Your task to perform on an android device: add a label to a message in the gmail app Image 0: 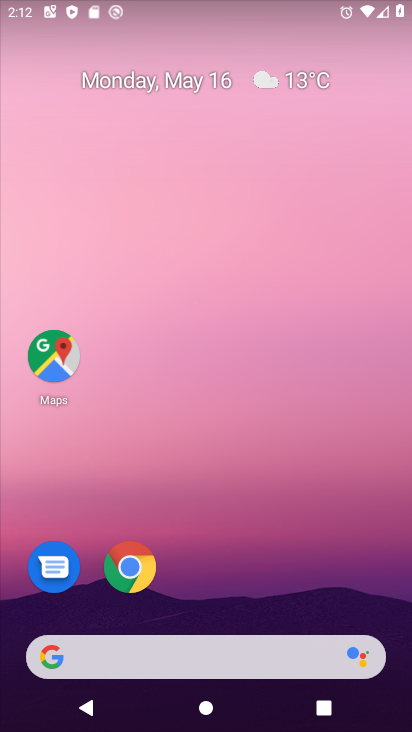
Step 0: press home button
Your task to perform on an android device: add a label to a message in the gmail app Image 1: 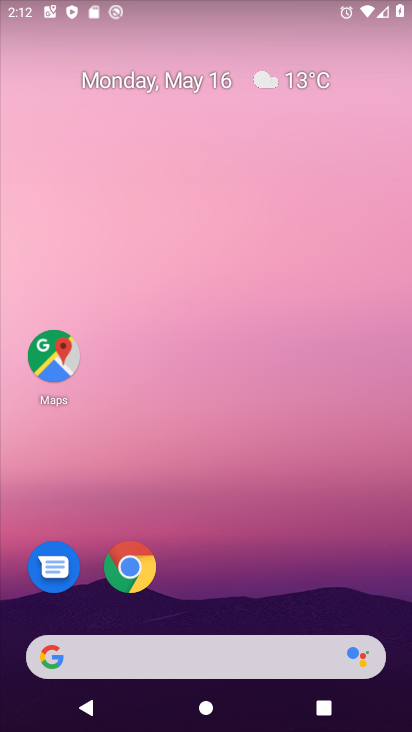
Step 1: drag from (233, 584) to (310, 11)
Your task to perform on an android device: add a label to a message in the gmail app Image 2: 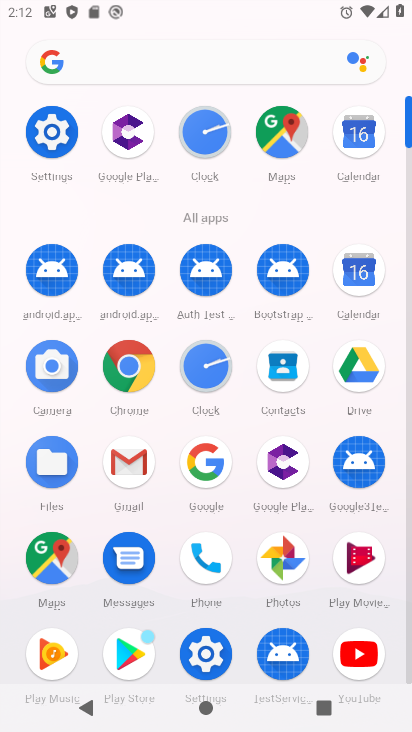
Step 2: click (126, 480)
Your task to perform on an android device: add a label to a message in the gmail app Image 3: 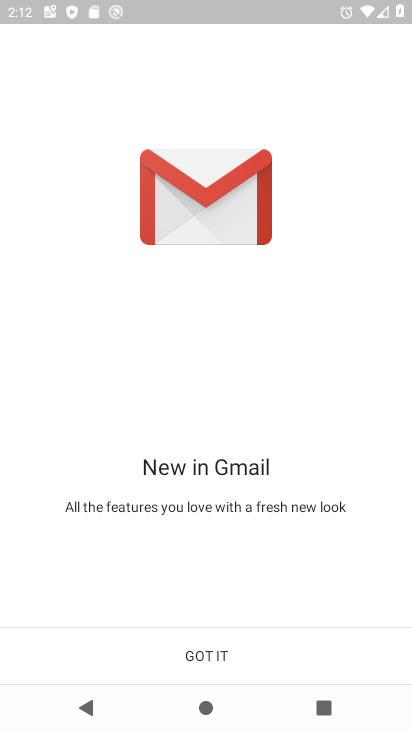
Step 3: click (190, 660)
Your task to perform on an android device: add a label to a message in the gmail app Image 4: 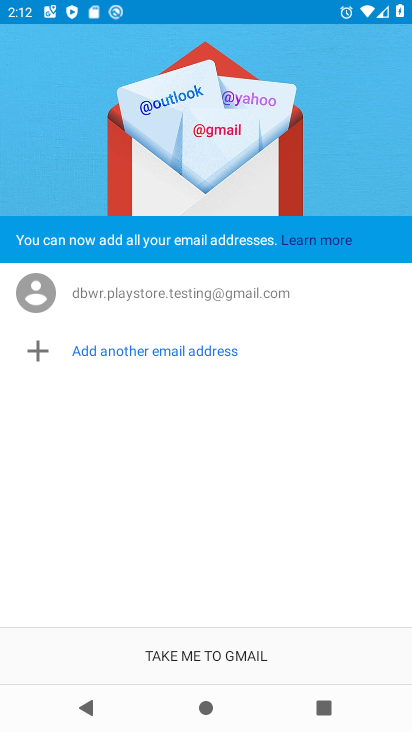
Step 4: click (190, 660)
Your task to perform on an android device: add a label to a message in the gmail app Image 5: 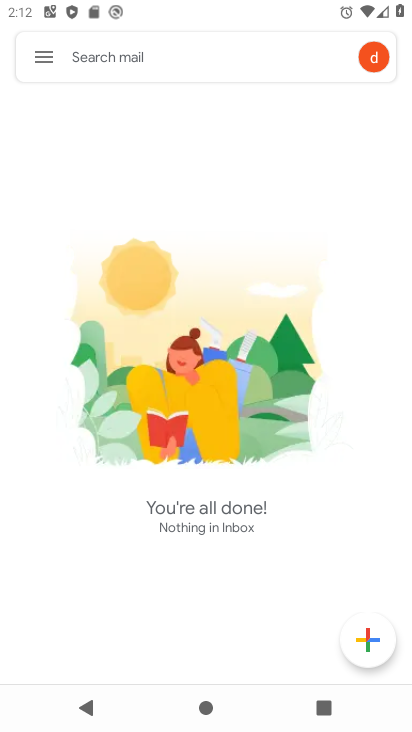
Step 5: click (32, 57)
Your task to perform on an android device: add a label to a message in the gmail app Image 6: 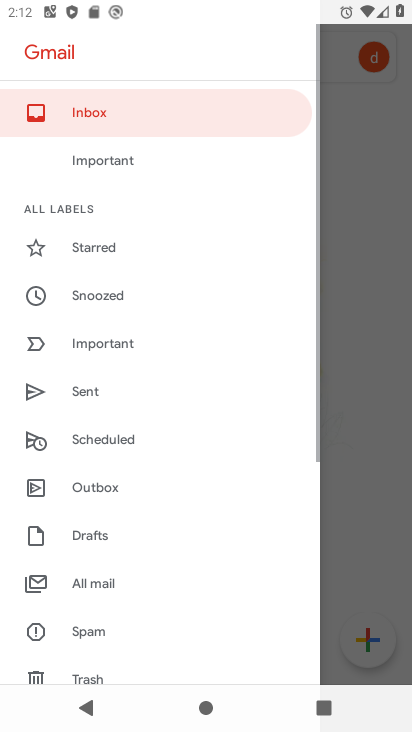
Step 6: task complete